Your task to perform on an android device: Go to Amazon Image 0: 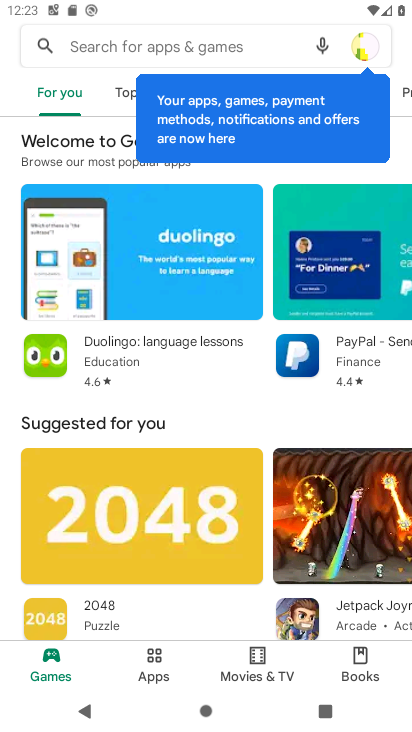
Step 0: press home button
Your task to perform on an android device: Go to Amazon Image 1: 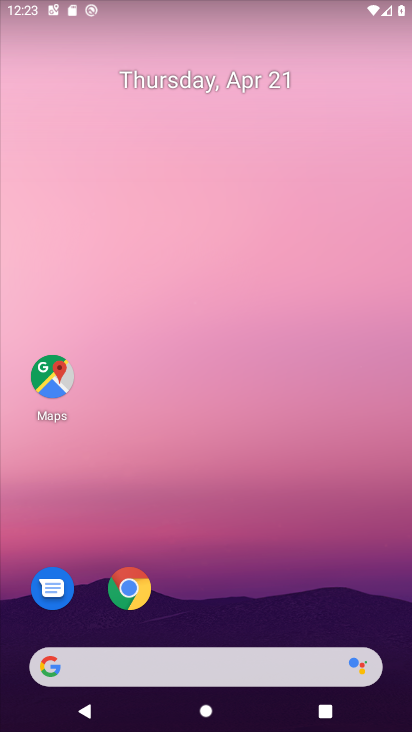
Step 1: drag from (217, 624) to (257, 7)
Your task to perform on an android device: Go to Amazon Image 2: 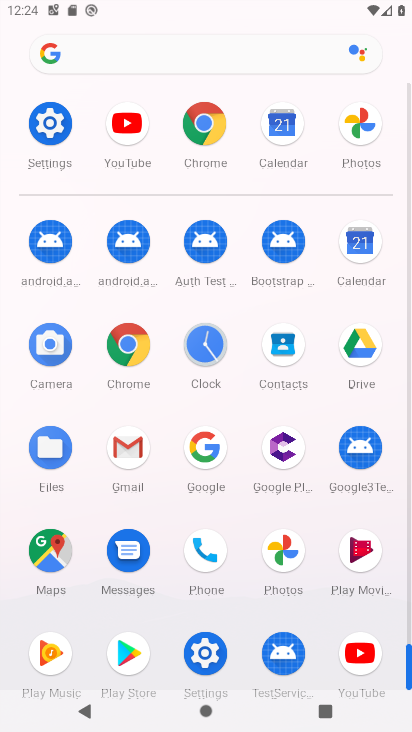
Step 2: click (126, 338)
Your task to perform on an android device: Go to Amazon Image 3: 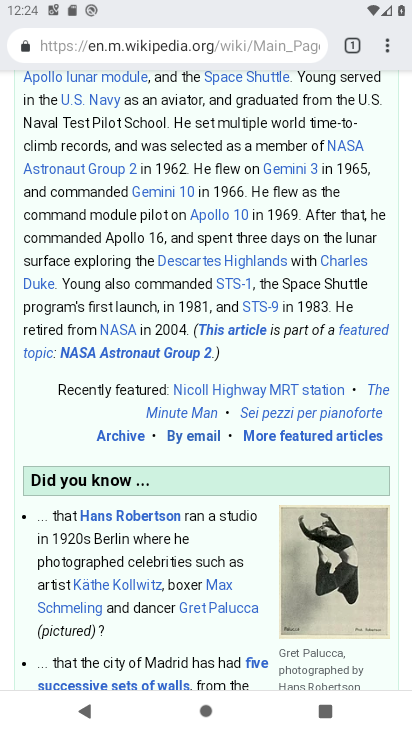
Step 3: click (354, 42)
Your task to perform on an android device: Go to Amazon Image 4: 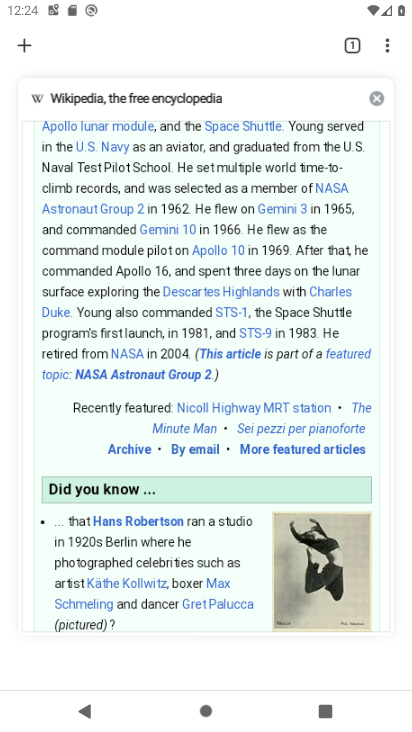
Step 4: click (375, 95)
Your task to perform on an android device: Go to Amazon Image 5: 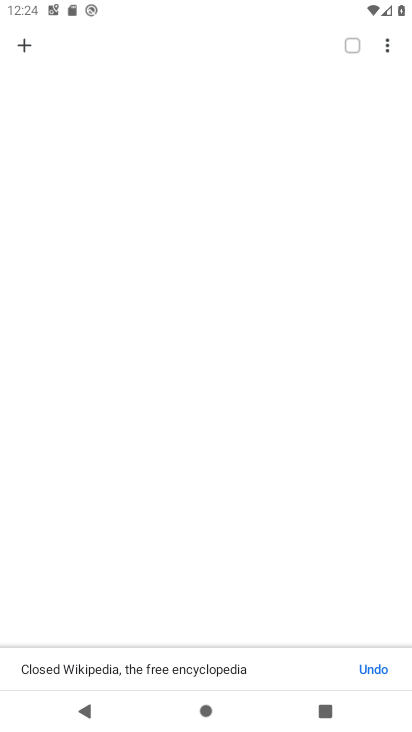
Step 5: click (20, 48)
Your task to perform on an android device: Go to Amazon Image 6: 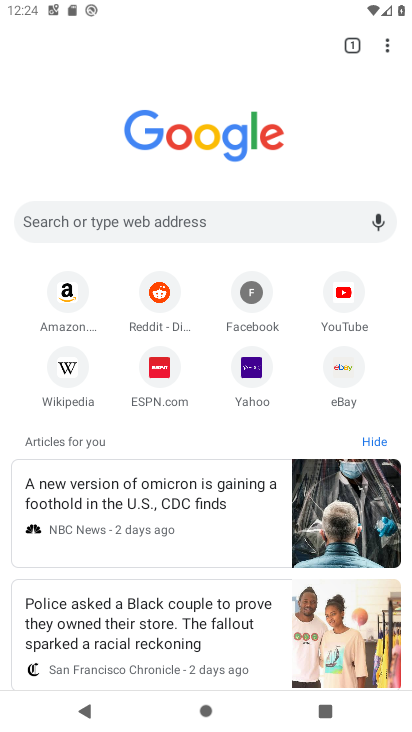
Step 6: click (64, 291)
Your task to perform on an android device: Go to Amazon Image 7: 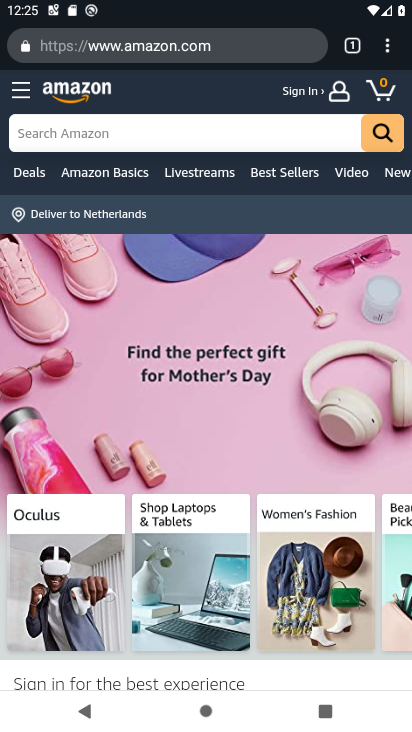
Step 7: task complete